Your task to perform on an android device: Open the calendar app, open the side menu, and click the "Day" option Image 0: 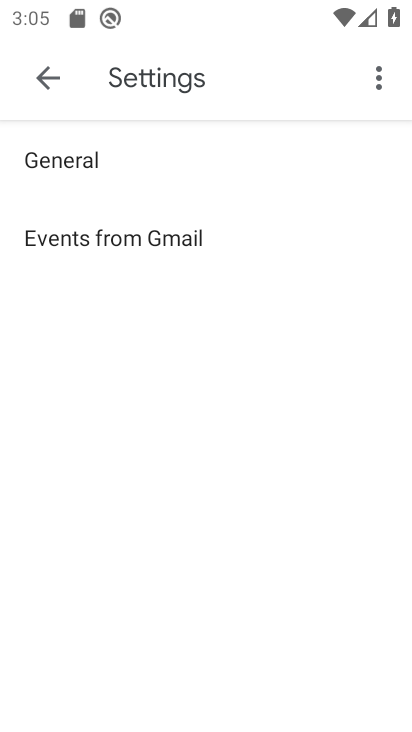
Step 0: press home button
Your task to perform on an android device: Open the calendar app, open the side menu, and click the "Day" option Image 1: 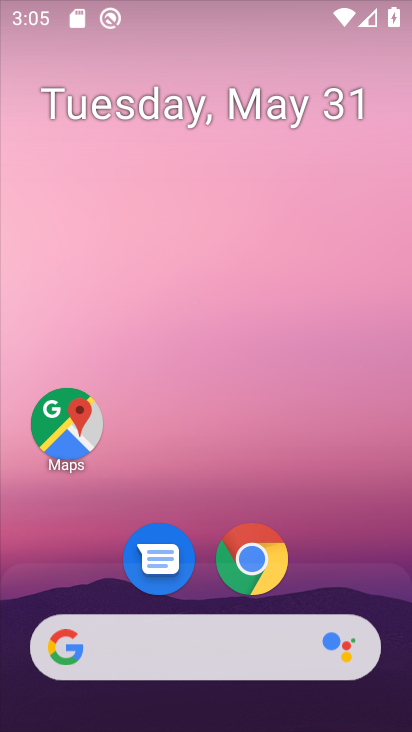
Step 1: drag from (239, 725) to (238, 131)
Your task to perform on an android device: Open the calendar app, open the side menu, and click the "Day" option Image 2: 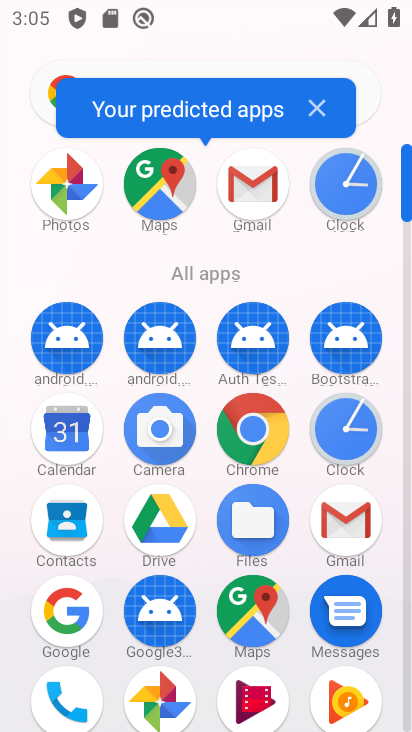
Step 2: click (72, 432)
Your task to perform on an android device: Open the calendar app, open the side menu, and click the "Day" option Image 3: 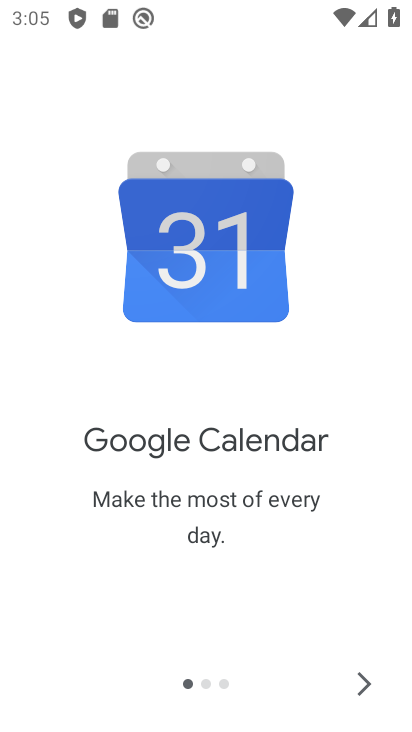
Step 3: click (366, 678)
Your task to perform on an android device: Open the calendar app, open the side menu, and click the "Day" option Image 4: 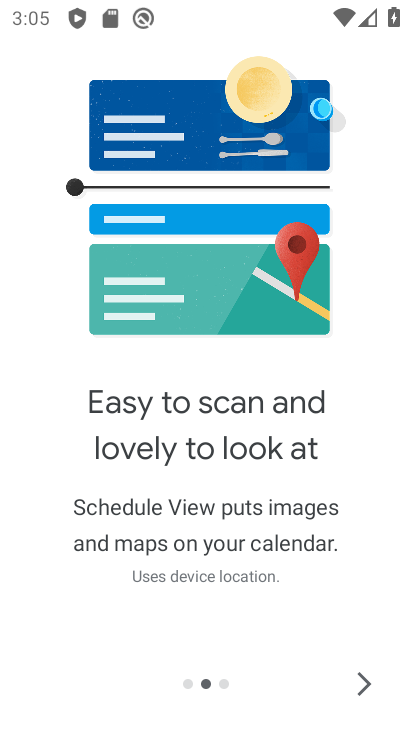
Step 4: click (366, 678)
Your task to perform on an android device: Open the calendar app, open the side menu, and click the "Day" option Image 5: 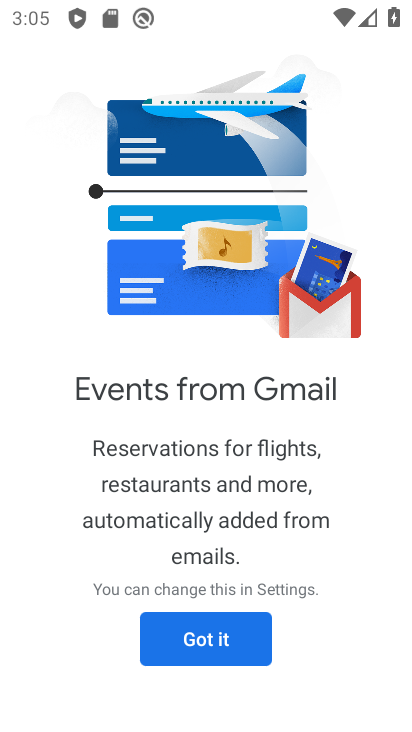
Step 5: click (210, 638)
Your task to perform on an android device: Open the calendar app, open the side menu, and click the "Day" option Image 6: 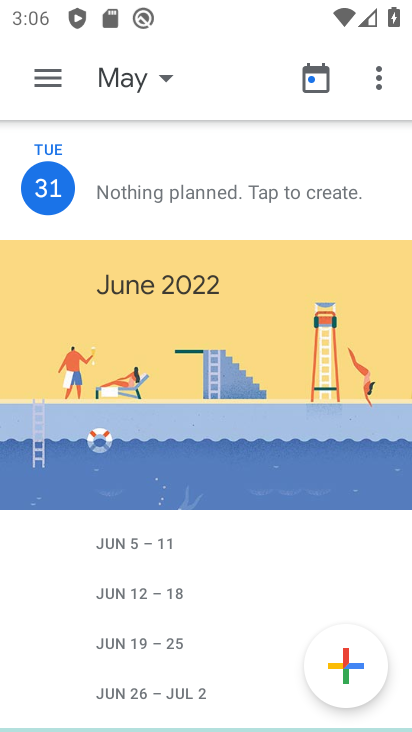
Step 6: click (51, 72)
Your task to perform on an android device: Open the calendar app, open the side menu, and click the "Day" option Image 7: 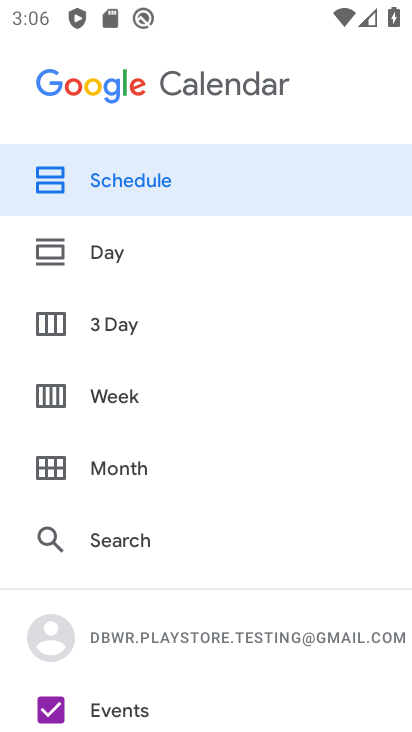
Step 7: click (112, 253)
Your task to perform on an android device: Open the calendar app, open the side menu, and click the "Day" option Image 8: 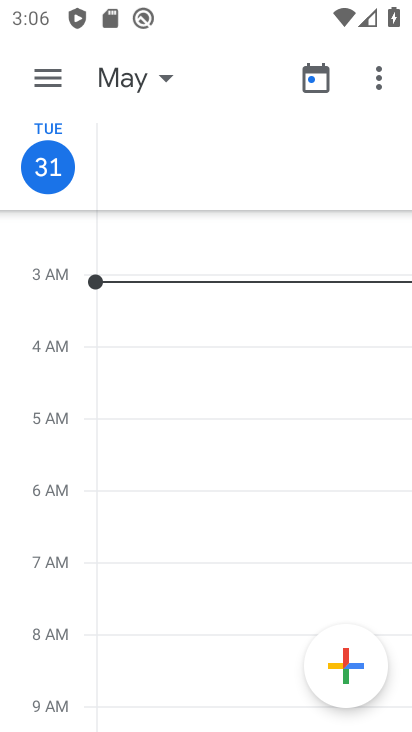
Step 8: task complete